Your task to perform on an android device: Search for seafood restaurants on Google Maps Image 0: 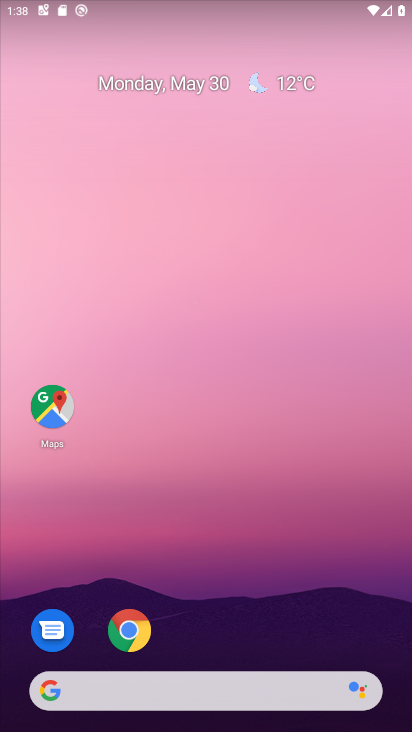
Step 0: click (68, 419)
Your task to perform on an android device: Search for seafood restaurants on Google Maps Image 1: 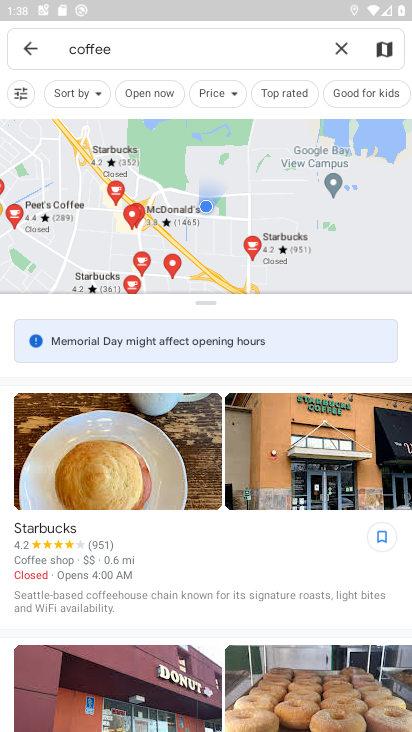
Step 1: click (345, 53)
Your task to perform on an android device: Search for seafood restaurants on Google Maps Image 2: 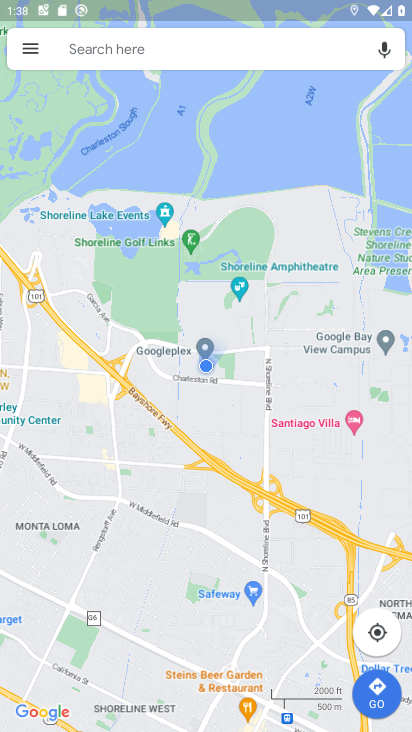
Step 2: click (204, 52)
Your task to perform on an android device: Search for seafood restaurants on Google Maps Image 3: 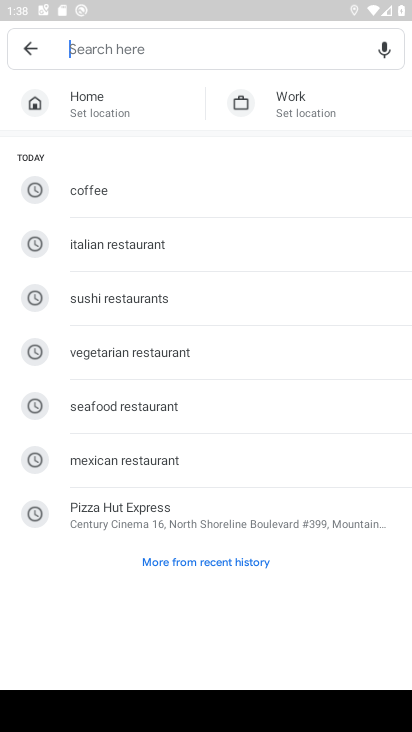
Step 3: click (220, 405)
Your task to perform on an android device: Search for seafood restaurants on Google Maps Image 4: 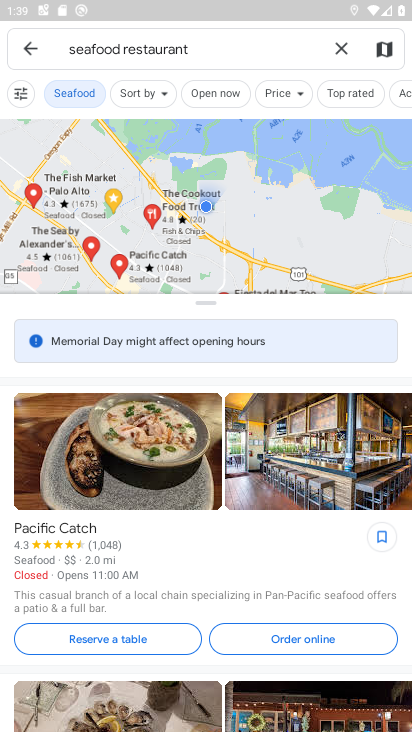
Step 4: task complete